Your task to perform on an android device: Go to Reddit.com Image 0: 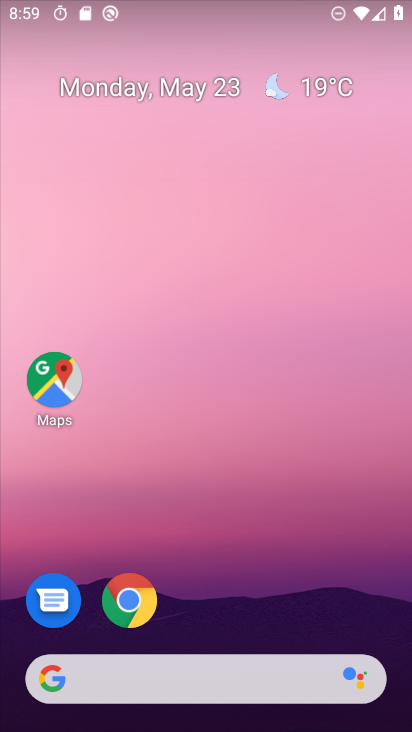
Step 0: press home button
Your task to perform on an android device: Go to Reddit.com Image 1: 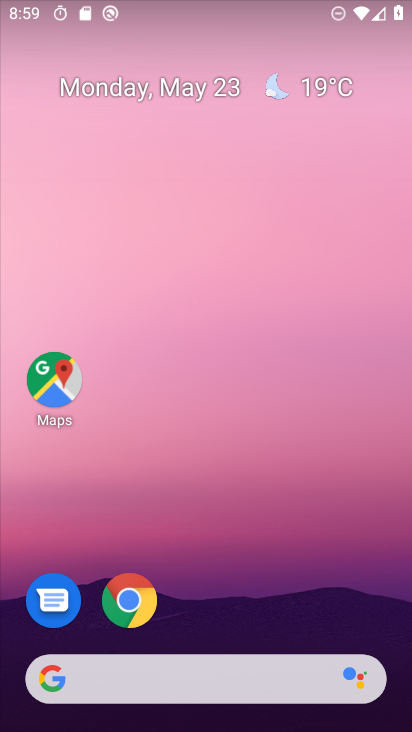
Step 1: click (128, 604)
Your task to perform on an android device: Go to Reddit.com Image 2: 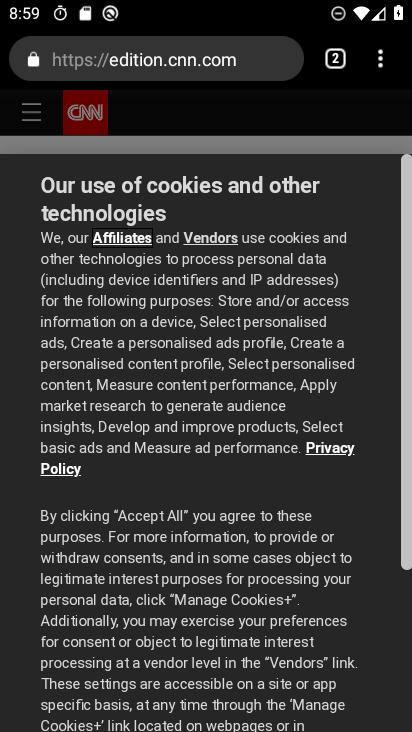
Step 2: click (116, 52)
Your task to perform on an android device: Go to Reddit.com Image 3: 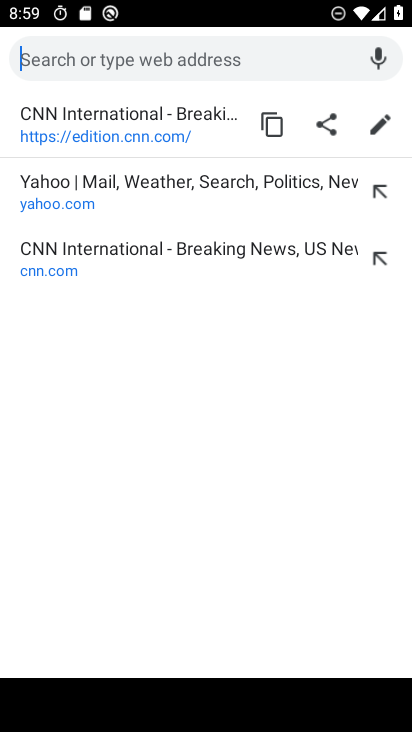
Step 3: type " Reddit.com"
Your task to perform on an android device: Go to Reddit.com Image 4: 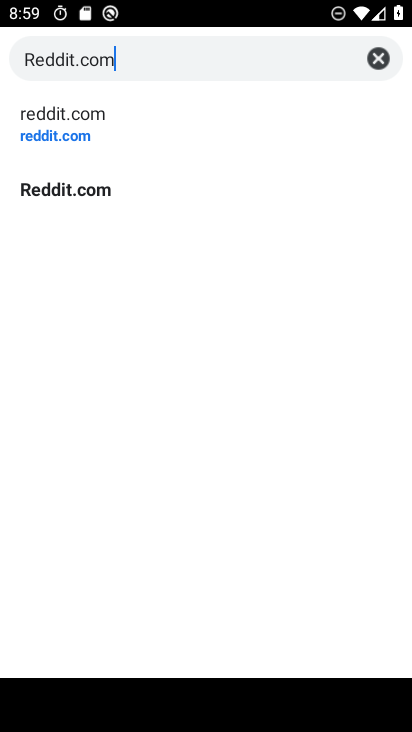
Step 4: type ""
Your task to perform on an android device: Go to Reddit.com Image 5: 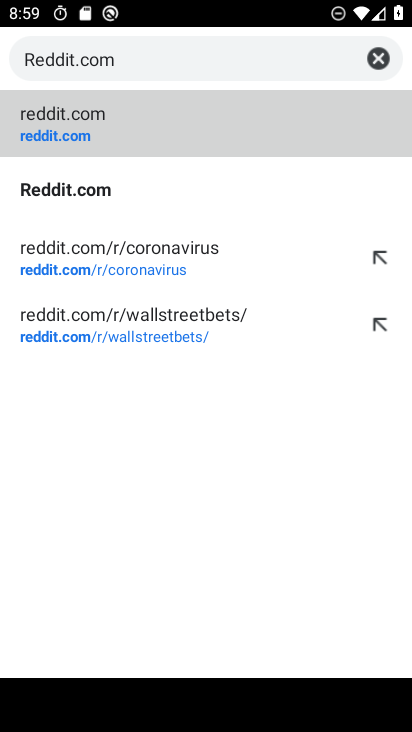
Step 5: click (88, 178)
Your task to perform on an android device: Go to Reddit.com Image 6: 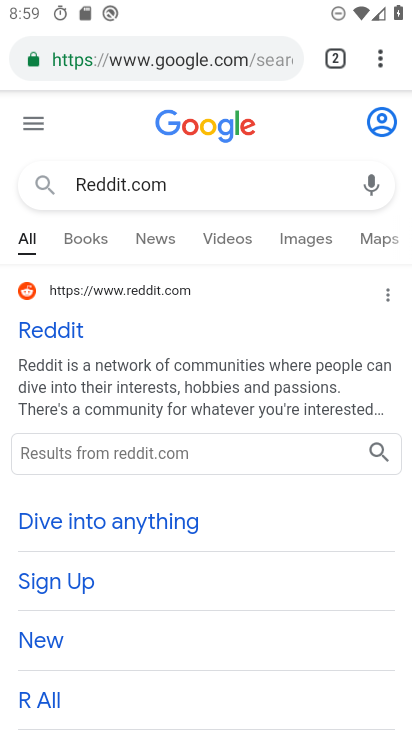
Step 6: click (62, 334)
Your task to perform on an android device: Go to Reddit.com Image 7: 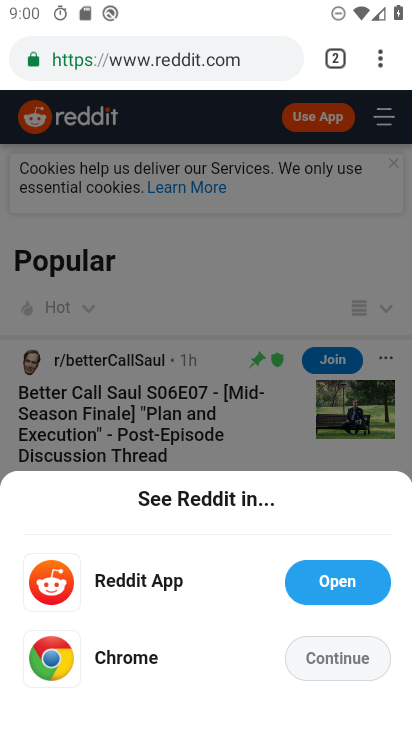
Step 7: task complete